Your task to perform on an android device: turn pop-ups on in chrome Image 0: 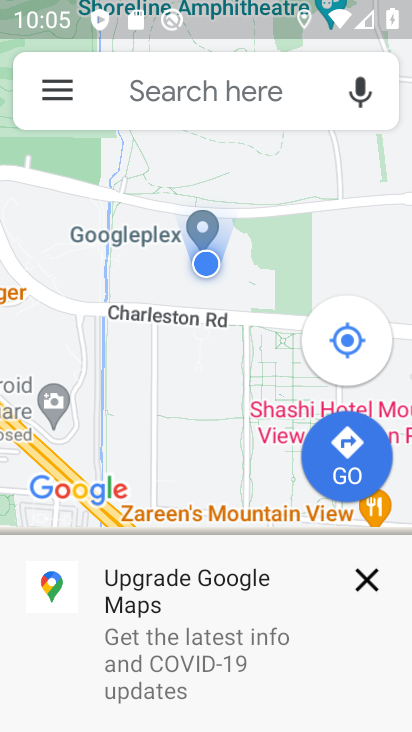
Step 0: press back button
Your task to perform on an android device: turn pop-ups on in chrome Image 1: 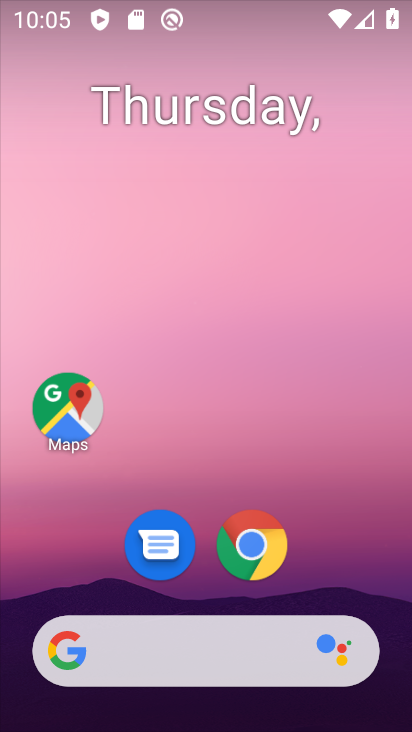
Step 1: click (252, 542)
Your task to perform on an android device: turn pop-ups on in chrome Image 2: 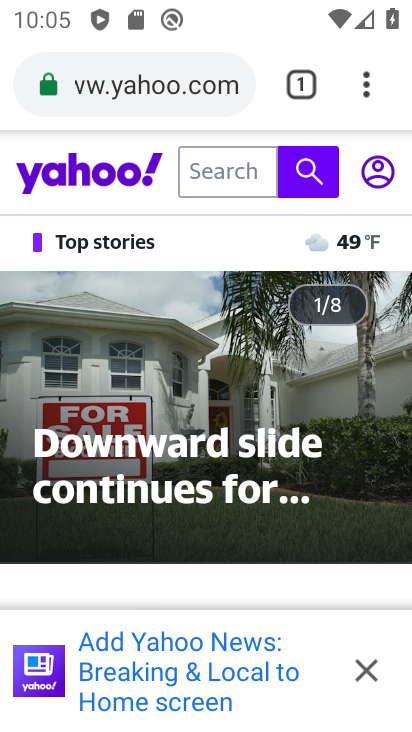
Step 2: click (366, 81)
Your task to perform on an android device: turn pop-ups on in chrome Image 3: 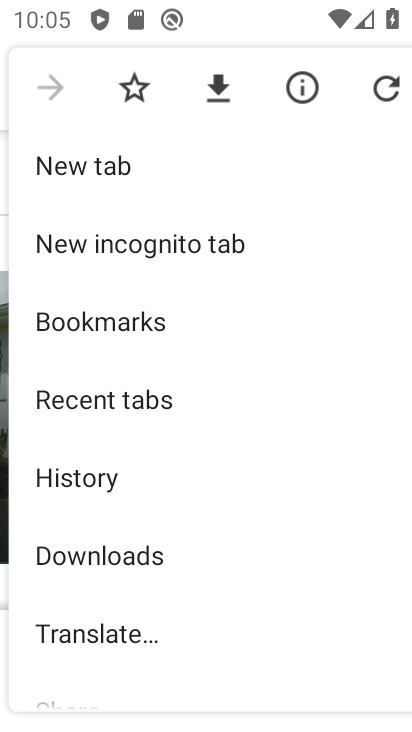
Step 3: drag from (114, 490) to (139, 370)
Your task to perform on an android device: turn pop-ups on in chrome Image 4: 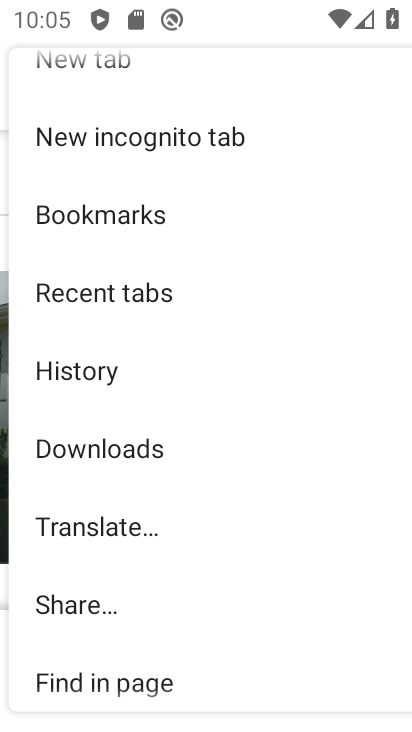
Step 4: drag from (75, 498) to (122, 408)
Your task to perform on an android device: turn pop-ups on in chrome Image 5: 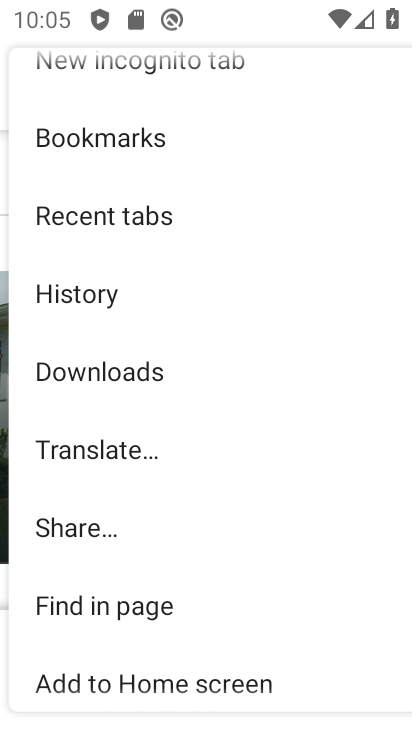
Step 5: drag from (73, 481) to (111, 379)
Your task to perform on an android device: turn pop-ups on in chrome Image 6: 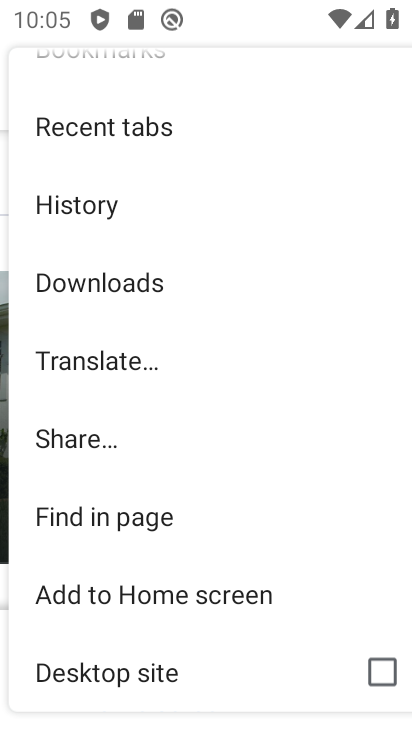
Step 6: drag from (67, 544) to (130, 413)
Your task to perform on an android device: turn pop-ups on in chrome Image 7: 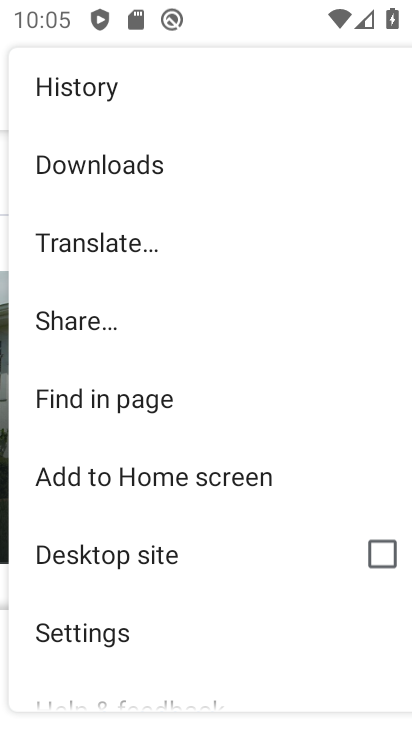
Step 7: drag from (86, 529) to (122, 430)
Your task to perform on an android device: turn pop-ups on in chrome Image 8: 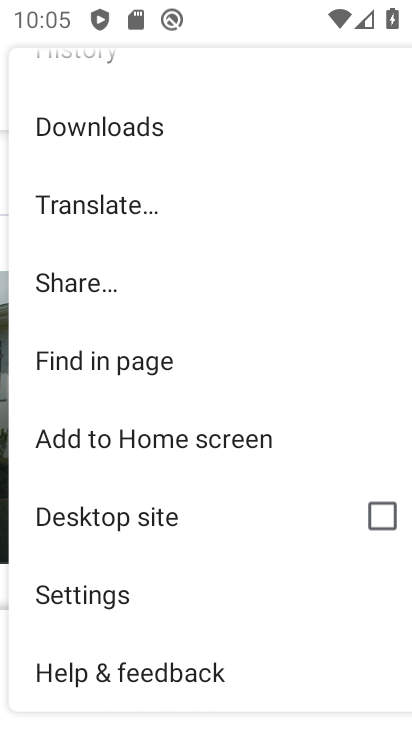
Step 8: click (67, 595)
Your task to perform on an android device: turn pop-ups on in chrome Image 9: 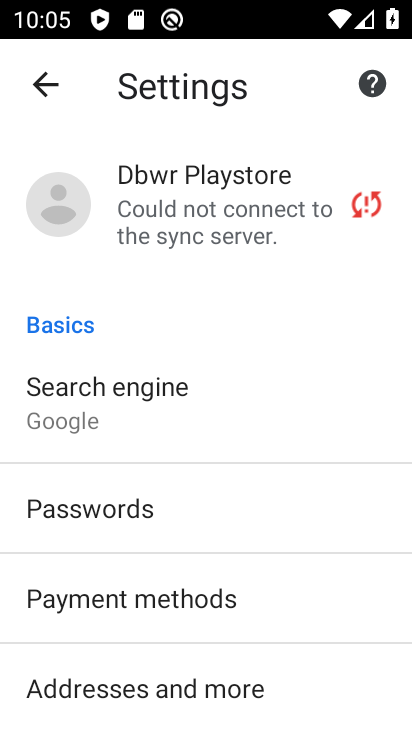
Step 9: drag from (88, 569) to (118, 468)
Your task to perform on an android device: turn pop-ups on in chrome Image 10: 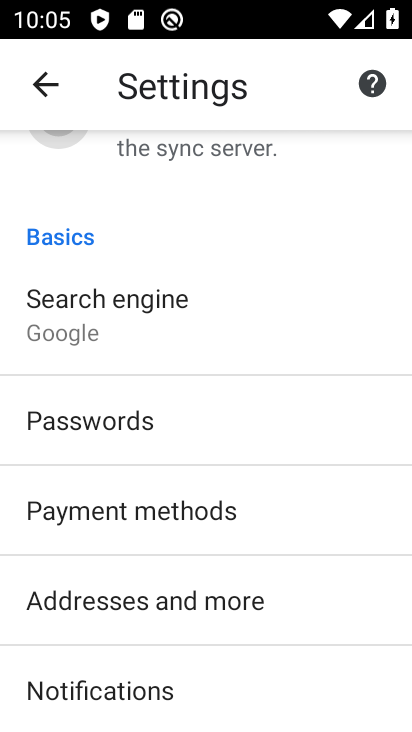
Step 10: drag from (89, 578) to (145, 485)
Your task to perform on an android device: turn pop-ups on in chrome Image 11: 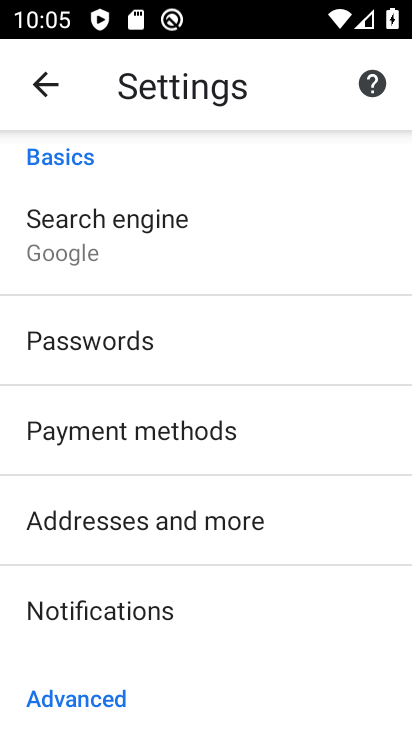
Step 11: drag from (95, 583) to (128, 476)
Your task to perform on an android device: turn pop-ups on in chrome Image 12: 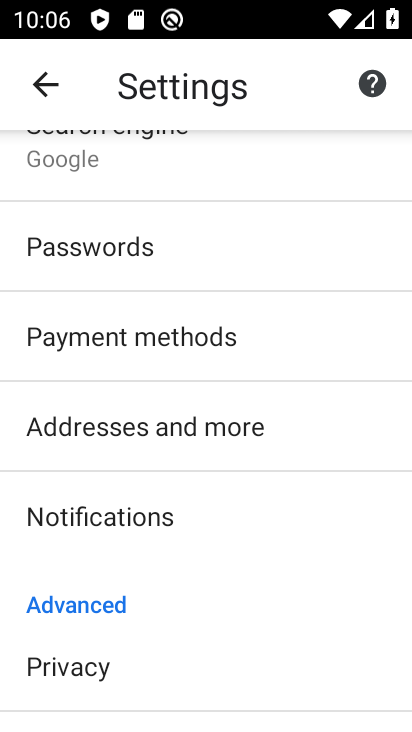
Step 12: drag from (81, 642) to (103, 536)
Your task to perform on an android device: turn pop-ups on in chrome Image 13: 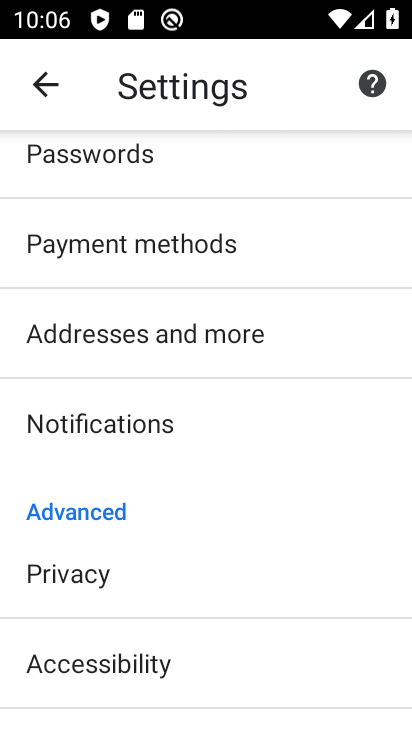
Step 13: drag from (78, 631) to (108, 535)
Your task to perform on an android device: turn pop-ups on in chrome Image 14: 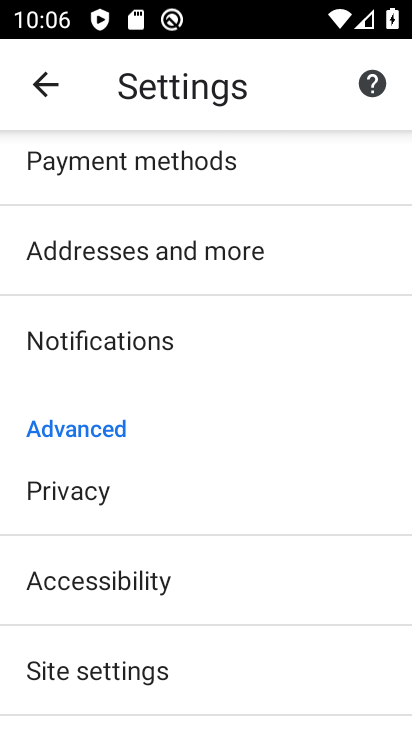
Step 14: click (74, 675)
Your task to perform on an android device: turn pop-ups on in chrome Image 15: 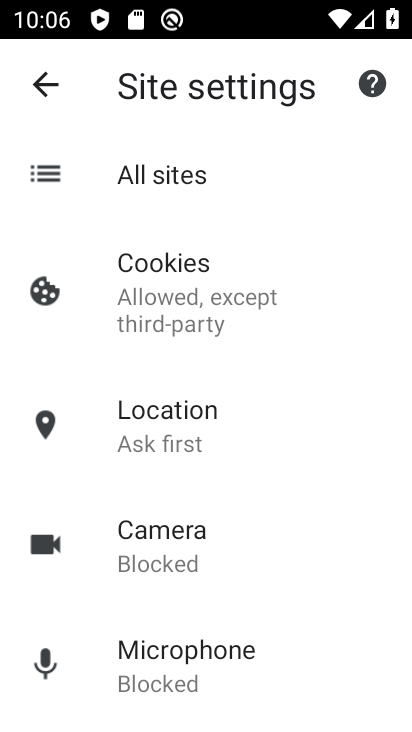
Step 15: drag from (143, 586) to (179, 493)
Your task to perform on an android device: turn pop-ups on in chrome Image 16: 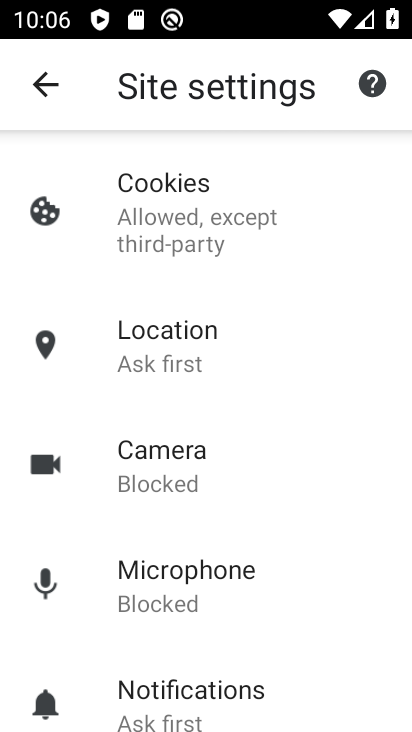
Step 16: drag from (148, 644) to (207, 537)
Your task to perform on an android device: turn pop-ups on in chrome Image 17: 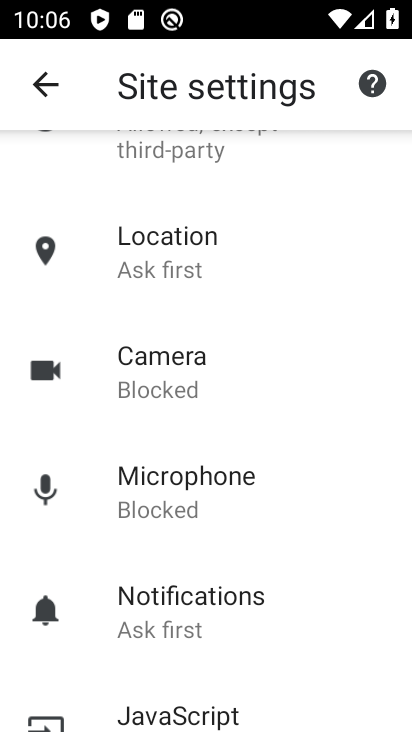
Step 17: drag from (139, 652) to (198, 538)
Your task to perform on an android device: turn pop-ups on in chrome Image 18: 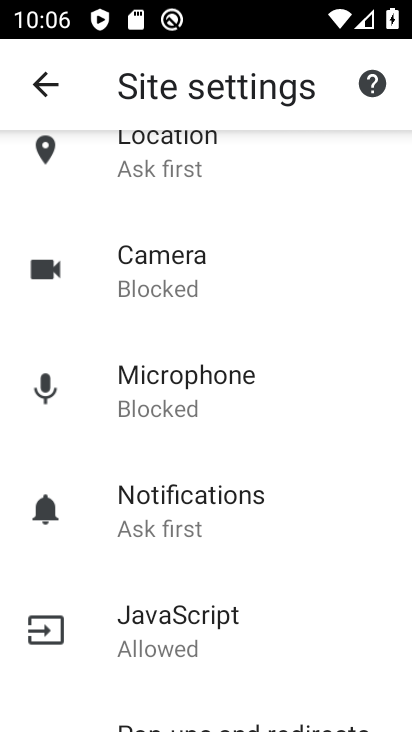
Step 18: drag from (153, 675) to (209, 562)
Your task to perform on an android device: turn pop-ups on in chrome Image 19: 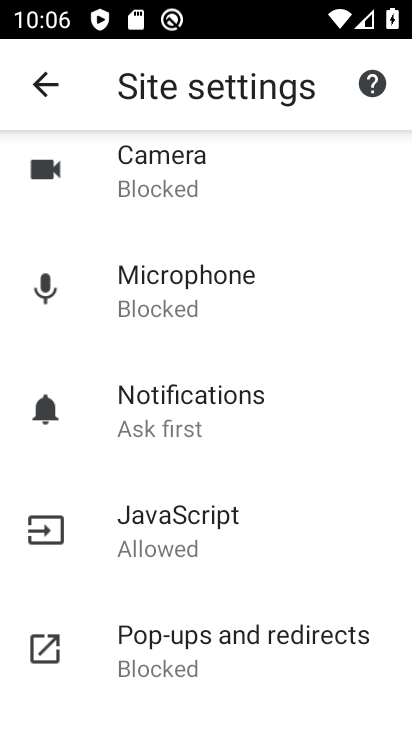
Step 19: click (174, 640)
Your task to perform on an android device: turn pop-ups on in chrome Image 20: 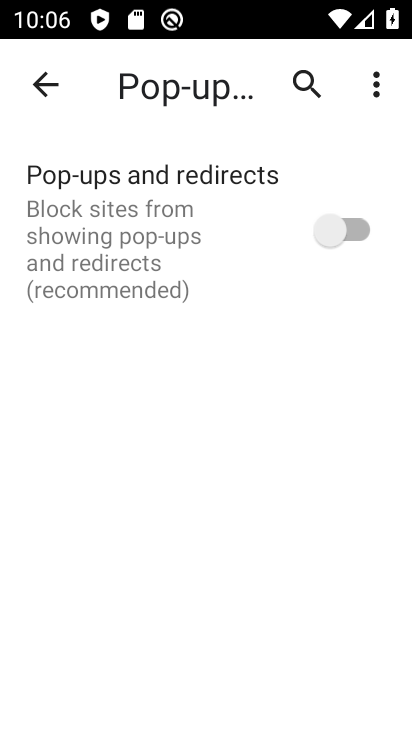
Step 20: click (346, 220)
Your task to perform on an android device: turn pop-ups on in chrome Image 21: 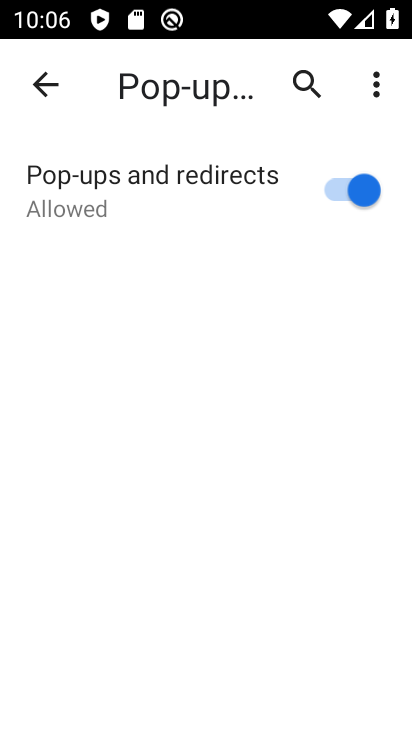
Step 21: task complete